Your task to perform on an android device: Search for sushi restaurants on Maps Image 0: 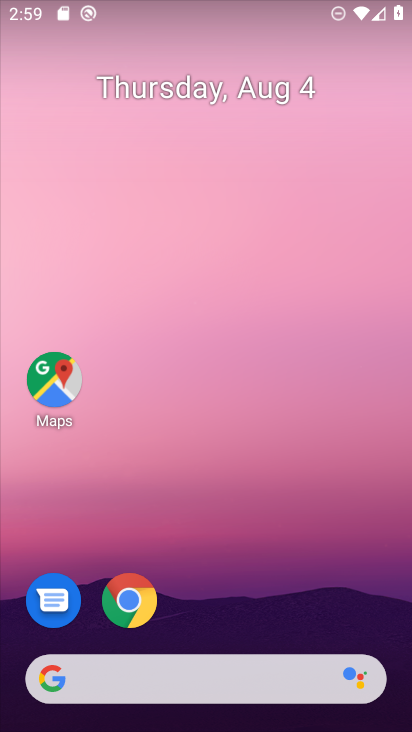
Step 0: click (45, 378)
Your task to perform on an android device: Search for sushi restaurants on Maps Image 1: 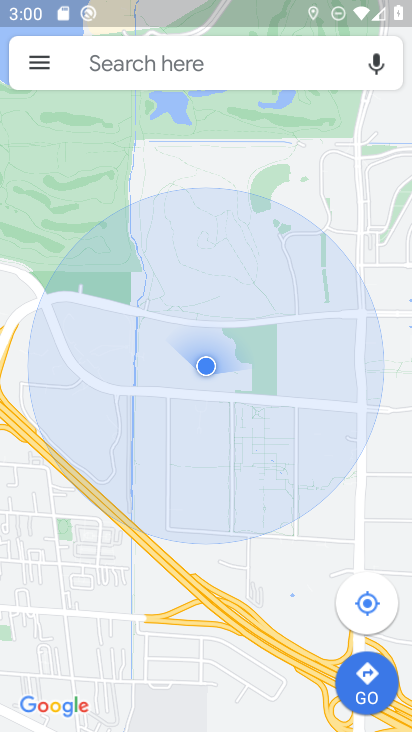
Step 1: click (169, 57)
Your task to perform on an android device: Search for sushi restaurants on Maps Image 2: 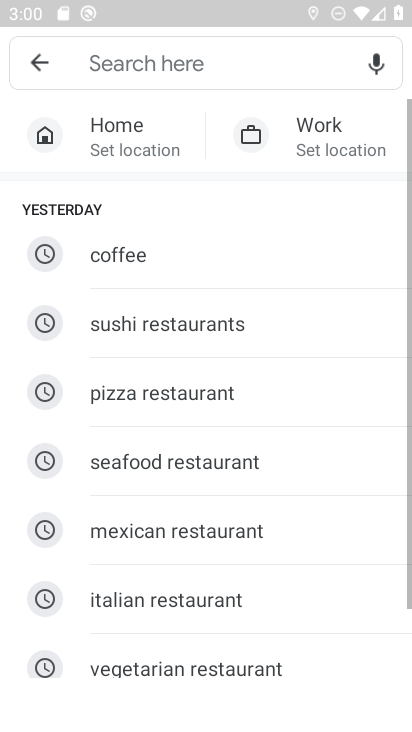
Step 2: click (205, 316)
Your task to perform on an android device: Search for sushi restaurants on Maps Image 3: 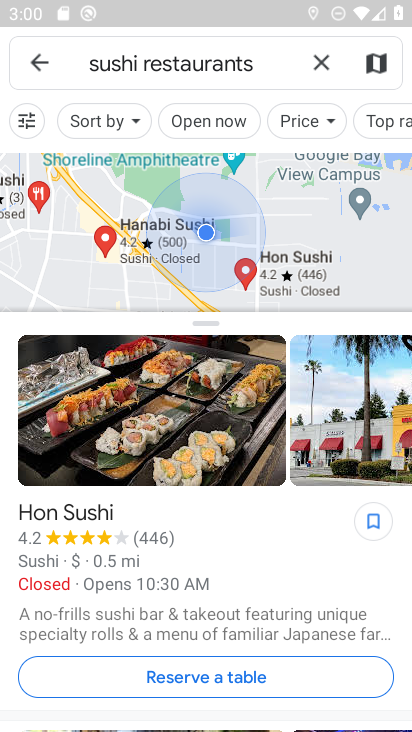
Step 3: task complete